Your task to perform on an android device: see tabs open on other devices in the chrome app Image 0: 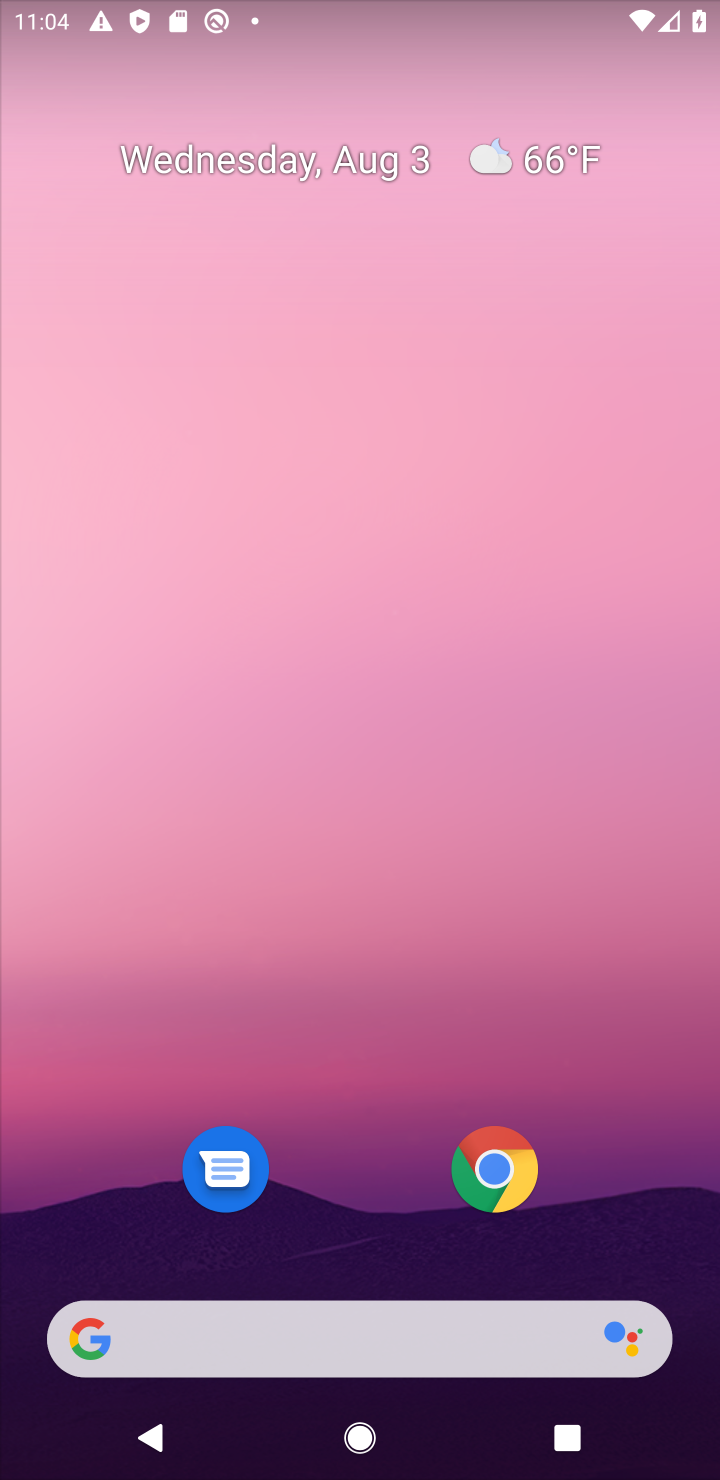
Step 0: click (508, 1176)
Your task to perform on an android device: see tabs open on other devices in the chrome app Image 1: 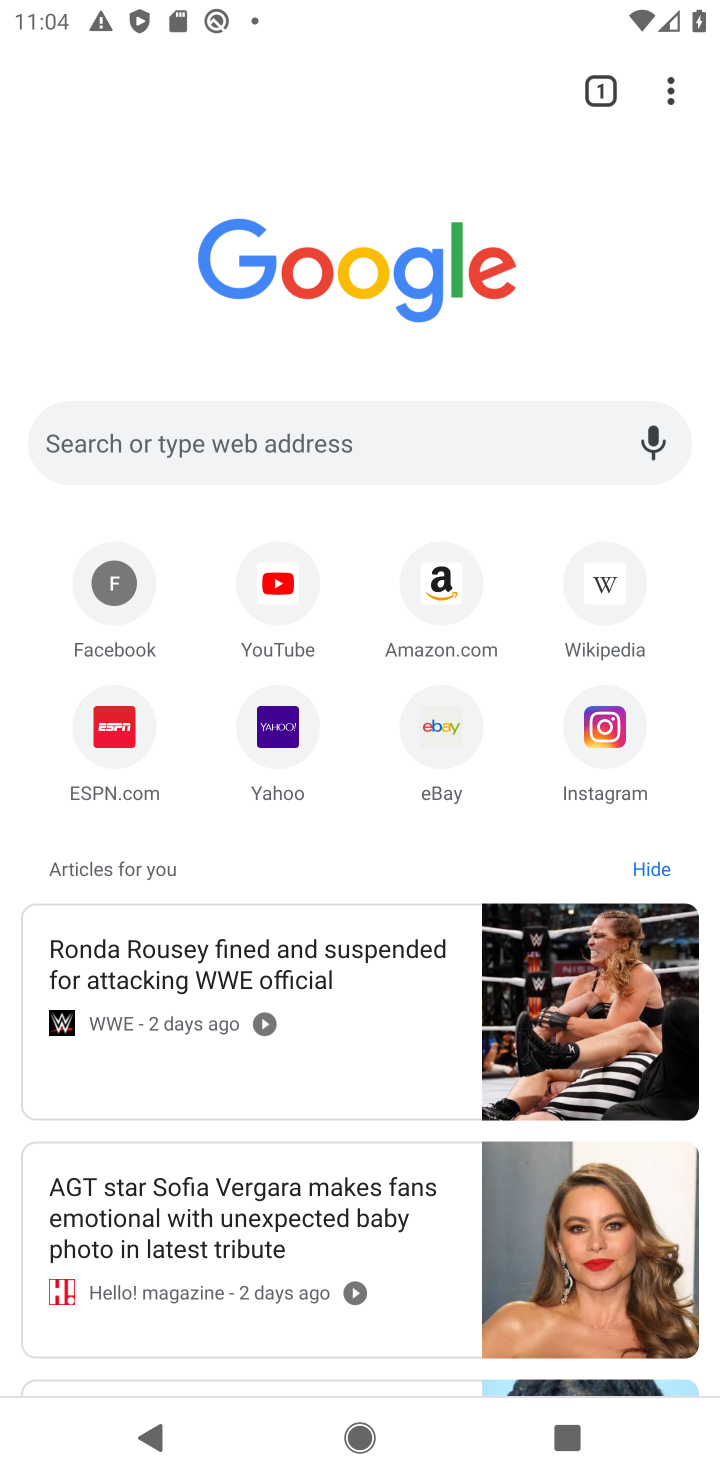
Step 1: click (676, 98)
Your task to perform on an android device: see tabs open on other devices in the chrome app Image 2: 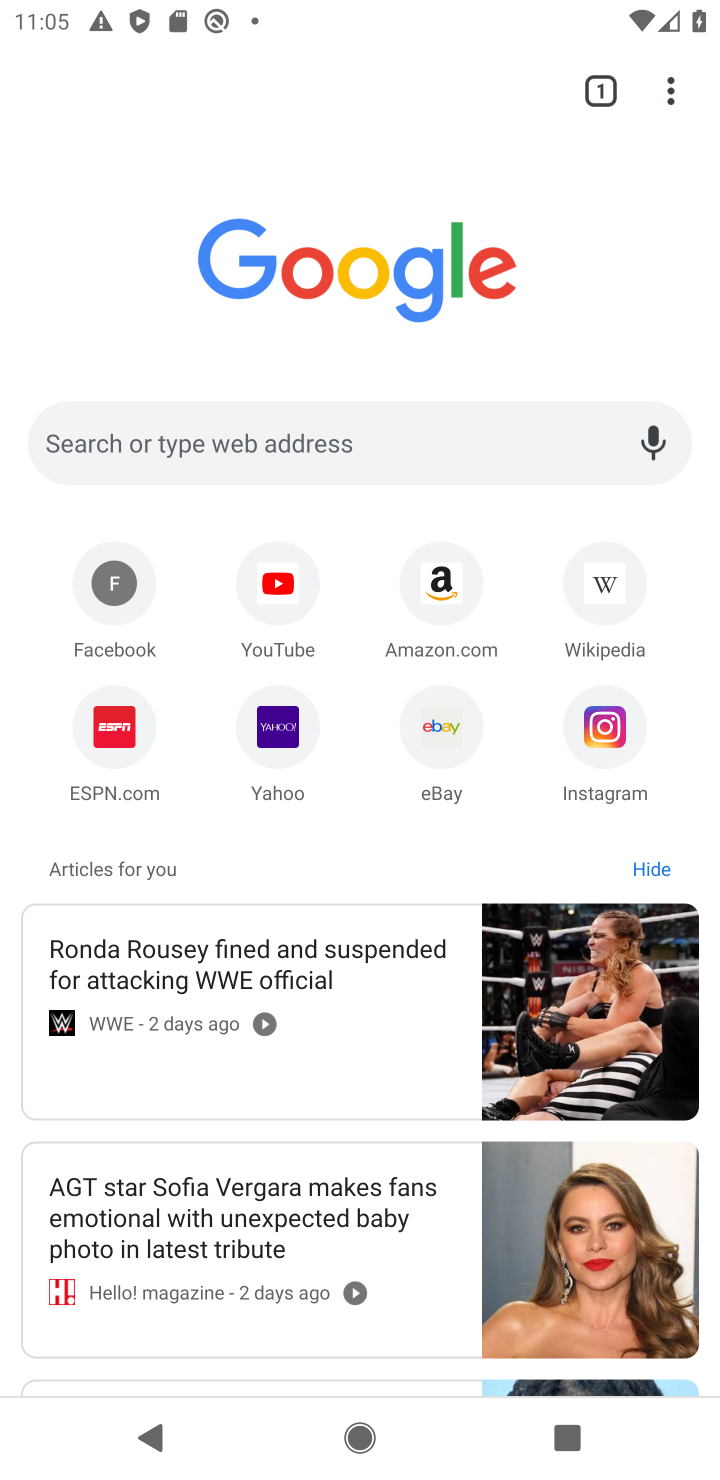
Step 2: click (671, 91)
Your task to perform on an android device: see tabs open on other devices in the chrome app Image 3: 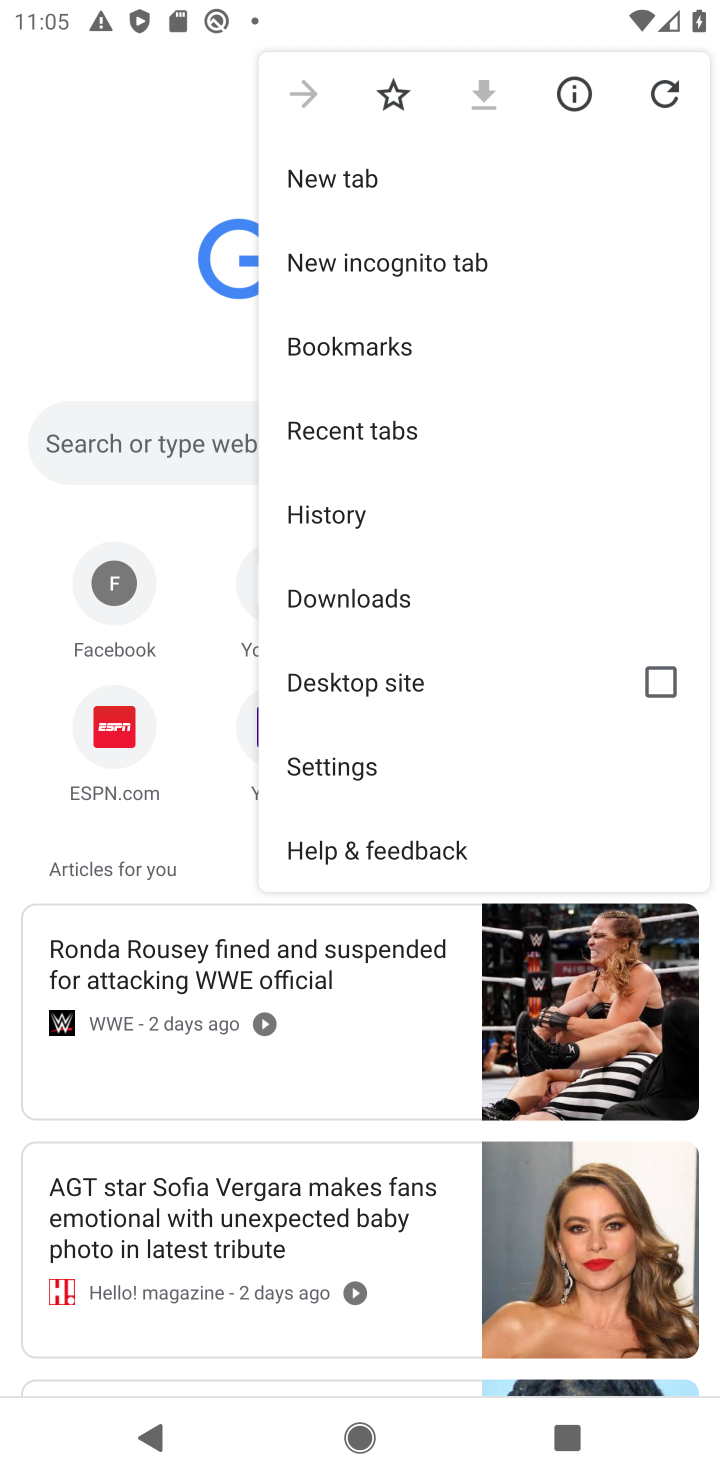
Step 3: click (328, 432)
Your task to perform on an android device: see tabs open on other devices in the chrome app Image 4: 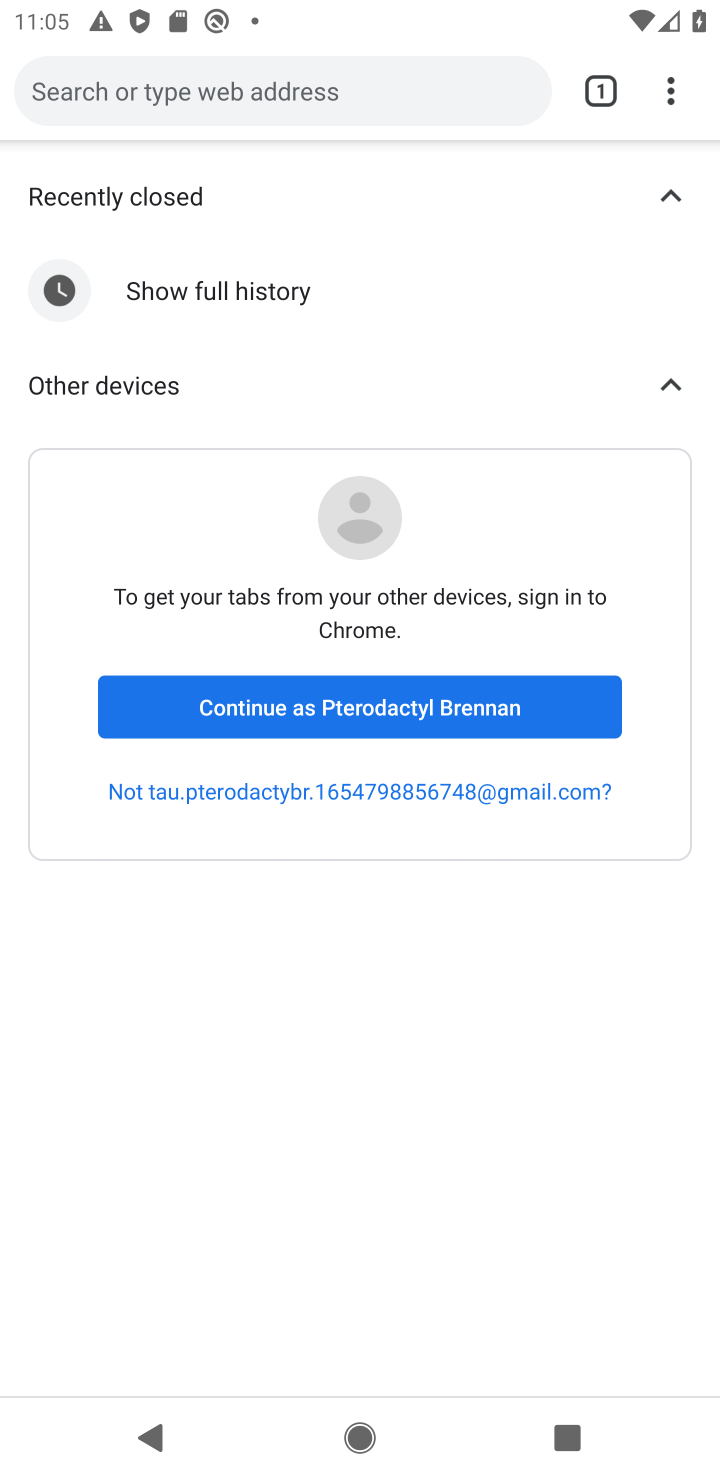
Step 4: click (317, 718)
Your task to perform on an android device: see tabs open on other devices in the chrome app Image 5: 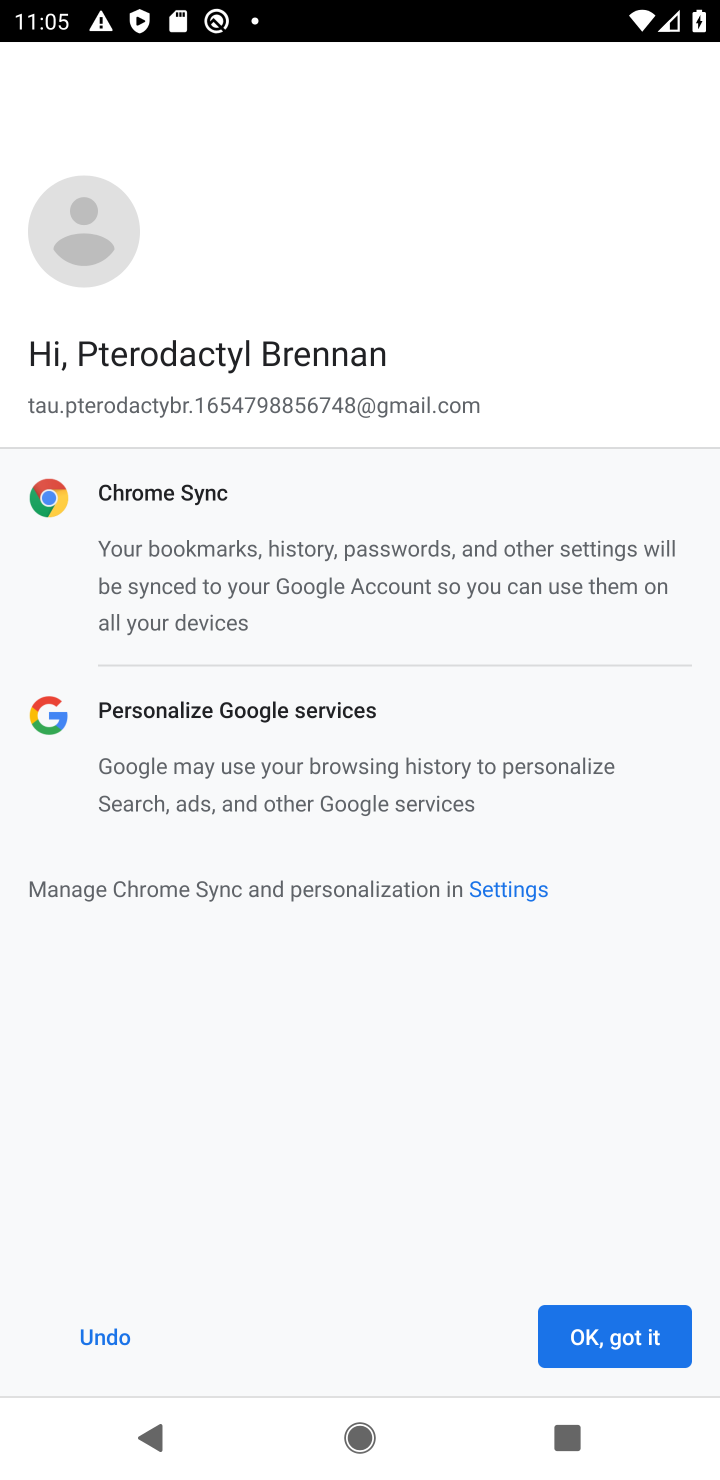
Step 5: click (616, 1345)
Your task to perform on an android device: see tabs open on other devices in the chrome app Image 6: 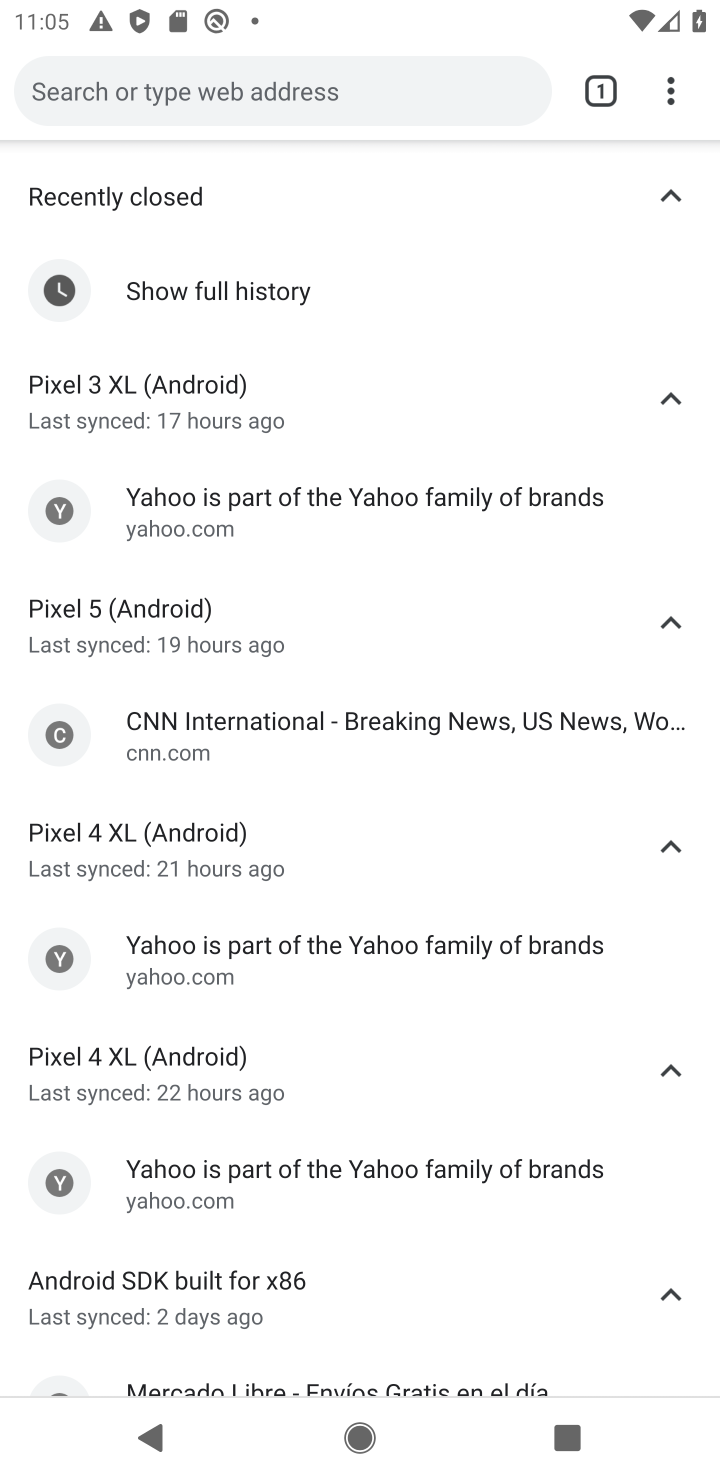
Step 6: task complete